Your task to perform on an android device: remove spam from my inbox in the gmail app Image 0: 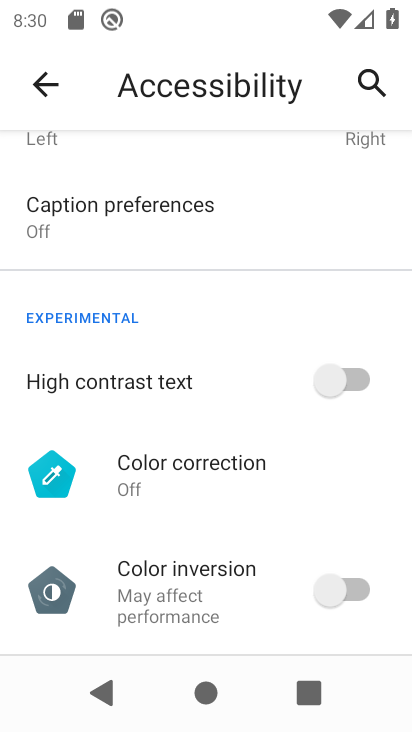
Step 0: press home button
Your task to perform on an android device: remove spam from my inbox in the gmail app Image 1: 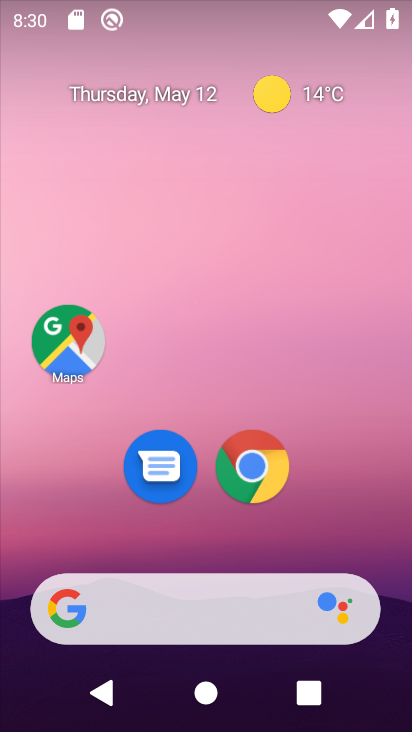
Step 1: drag from (202, 546) to (218, 86)
Your task to perform on an android device: remove spam from my inbox in the gmail app Image 2: 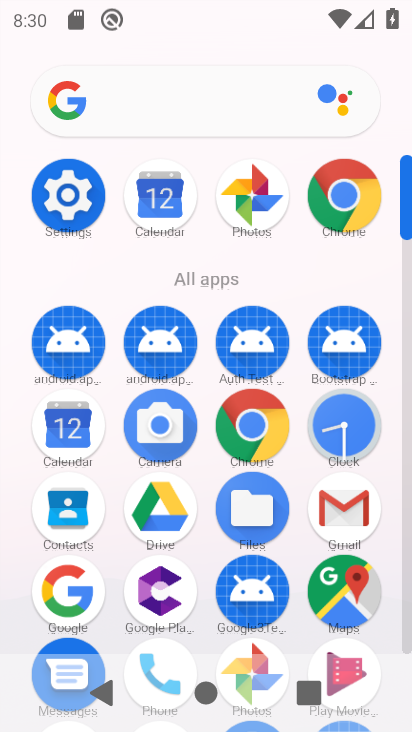
Step 2: click (345, 498)
Your task to perform on an android device: remove spam from my inbox in the gmail app Image 3: 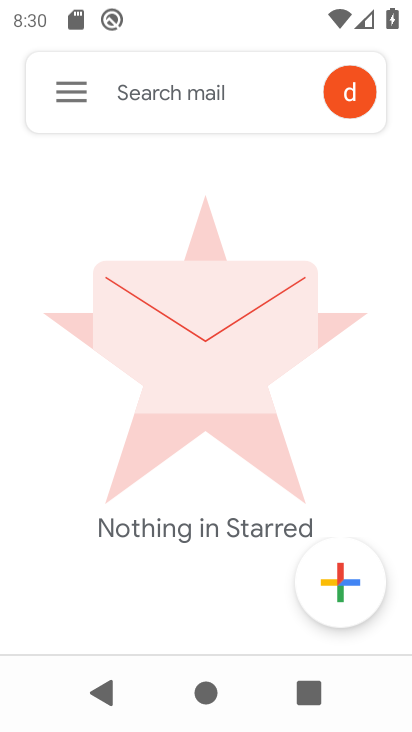
Step 3: click (66, 88)
Your task to perform on an android device: remove spam from my inbox in the gmail app Image 4: 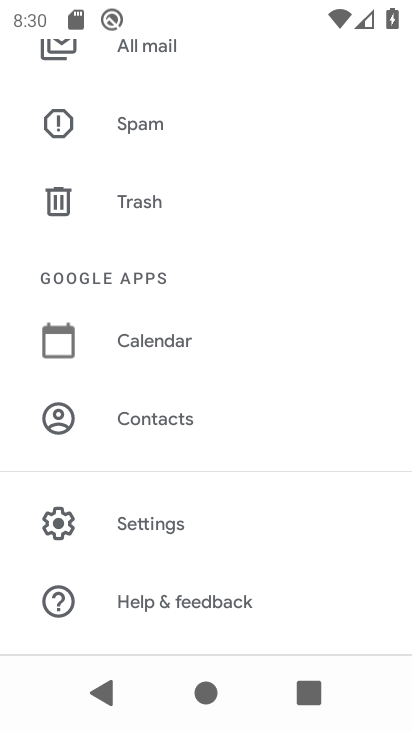
Step 4: click (125, 127)
Your task to perform on an android device: remove spam from my inbox in the gmail app Image 5: 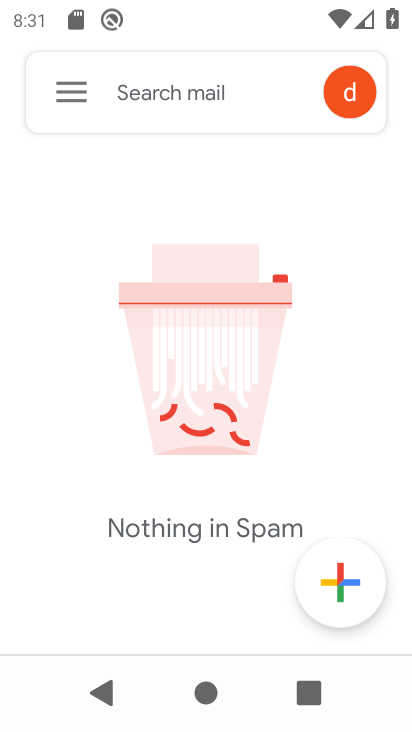
Step 5: task complete